Your task to perform on an android device: Go to Yahoo.com Image 0: 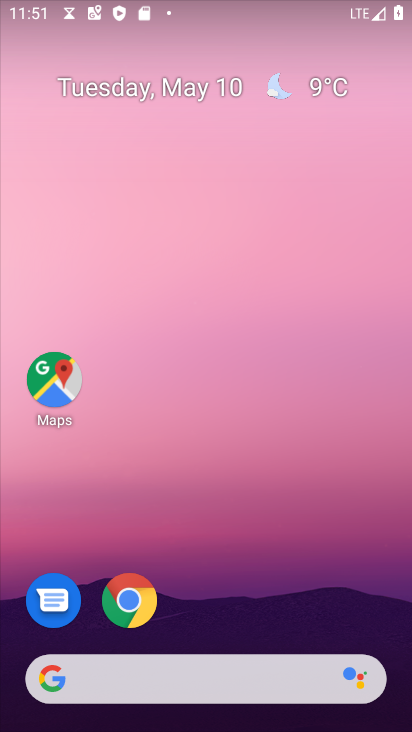
Step 0: click (133, 593)
Your task to perform on an android device: Go to Yahoo.com Image 1: 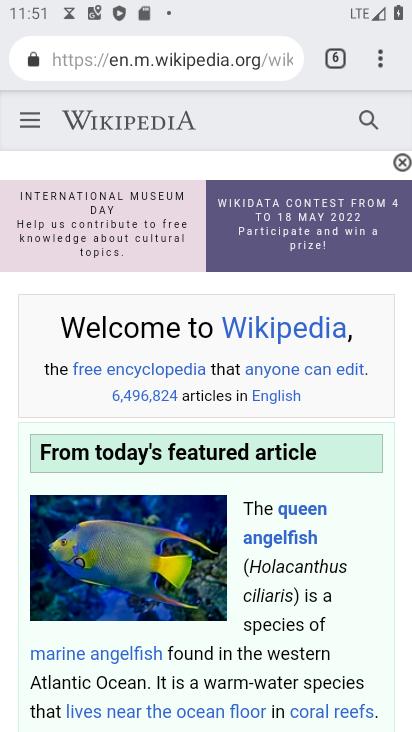
Step 1: click (332, 53)
Your task to perform on an android device: Go to Yahoo.com Image 2: 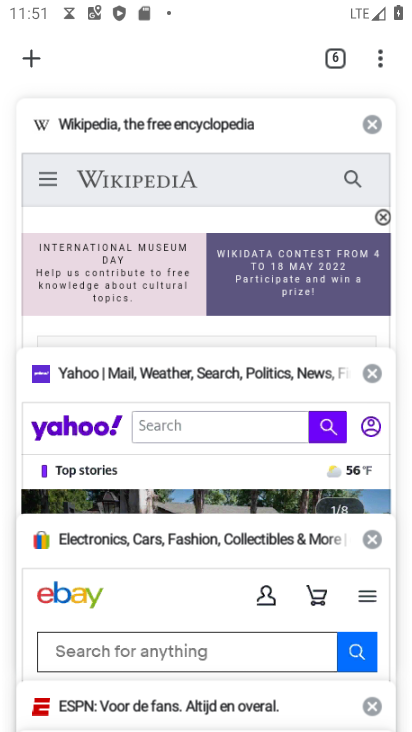
Step 2: click (88, 373)
Your task to perform on an android device: Go to Yahoo.com Image 3: 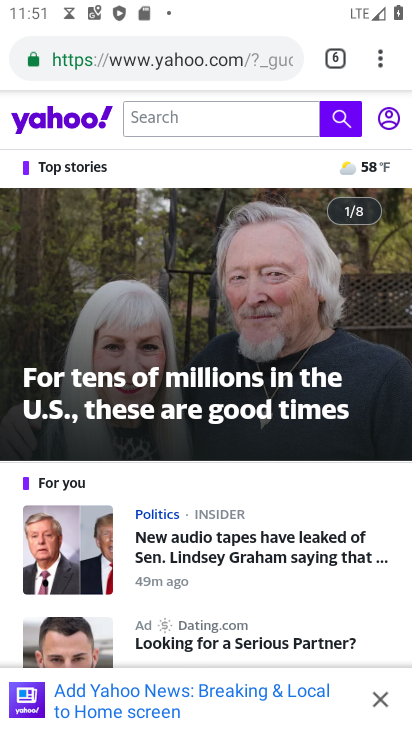
Step 3: task complete